Your task to perform on an android device: toggle priority inbox in the gmail app Image 0: 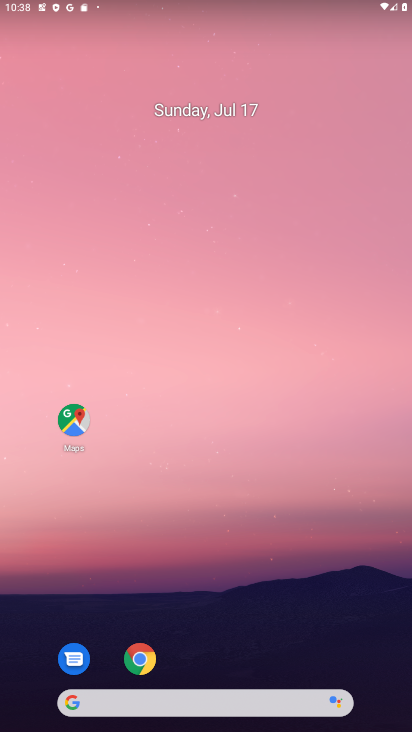
Step 0: drag from (216, 659) to (348, 93)
Your task to perform on an android device: toggle priority inbox in the gmail app Image 1: 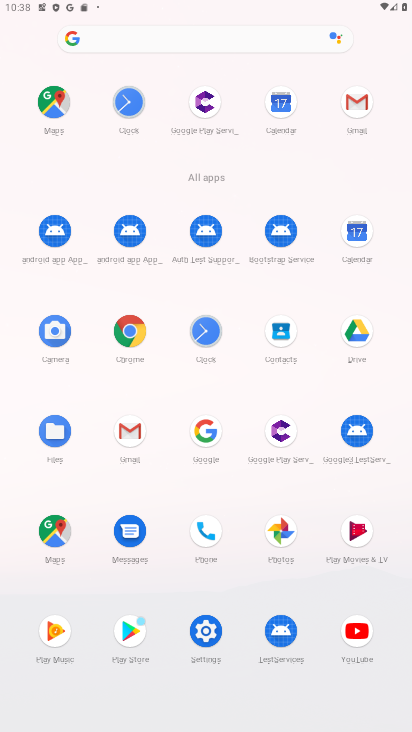
Step 1: click (348, 93)
Your task to perform on an android device: toggle priority inbox in the gmail app Image 2: 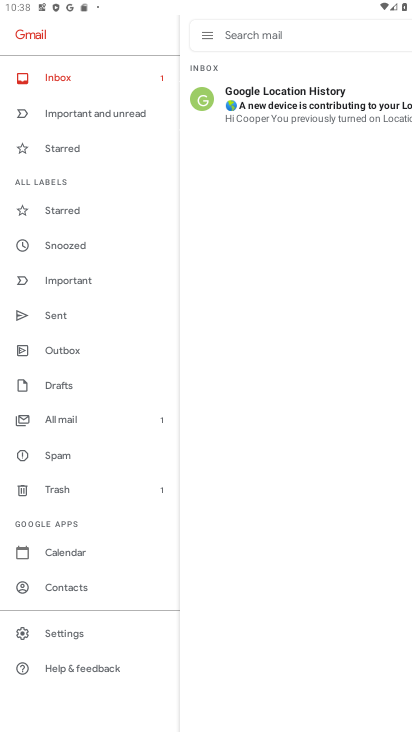
Step 2: click (39, 625)
Your task to perform on an android device: toggle priority inbox in the gmail app Image 3: 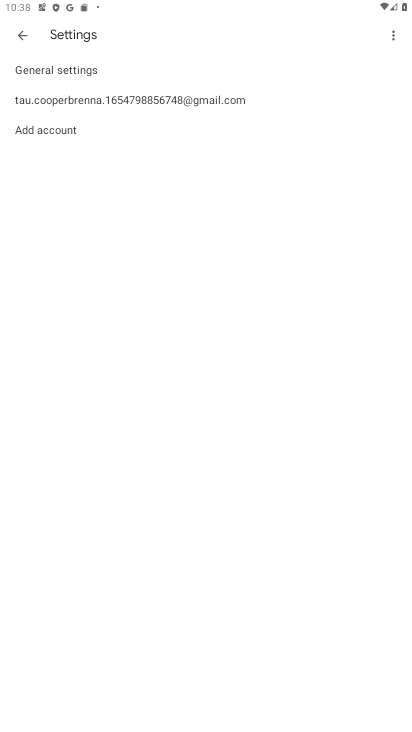
Step 3: click (264, 115)
Your task to perform on an android device: toggle priority inbox in the gmail app Image 4: 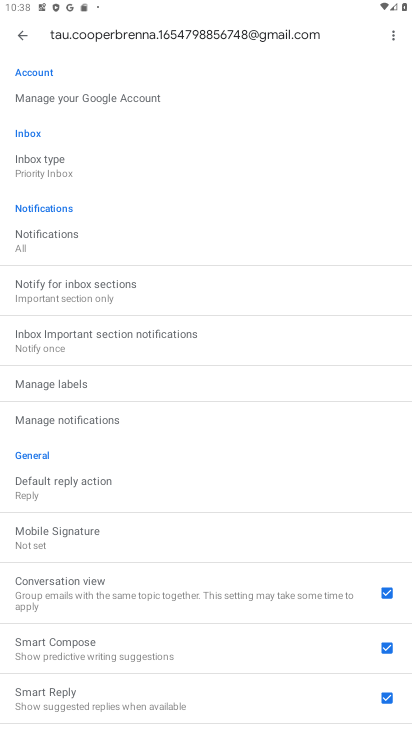
Step 4: click (38, 147)
Your task to perform on an android device: toggle priority inbox in the gmail app Image 5: 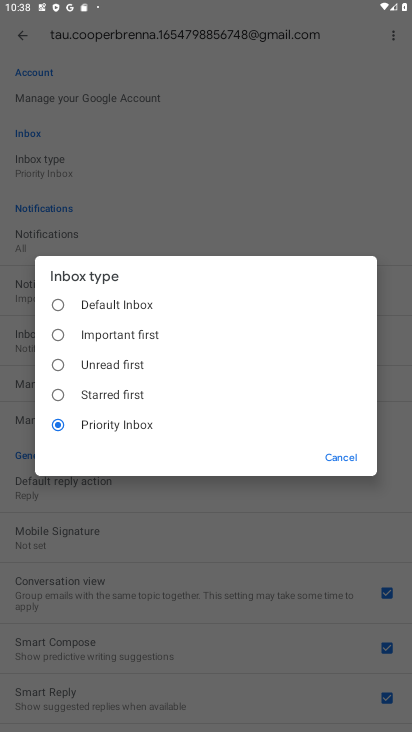
Step 5: click (70, 407)
Your task to perform on an android device: toggle priority inbox in the gmail app Image 6: 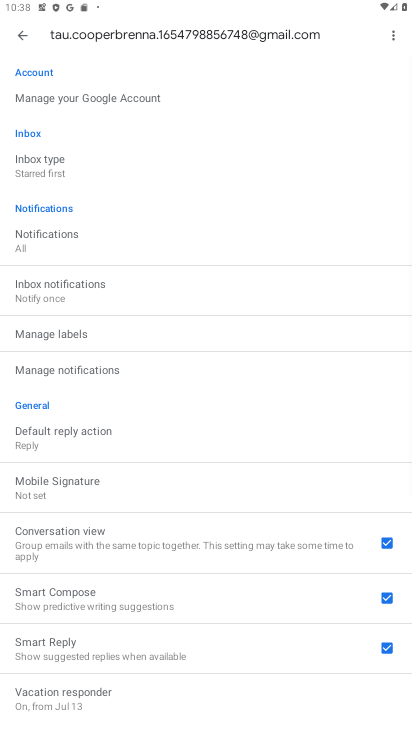
Step 6: task complete